Your task to perform on an android device: check google app version Image 0: 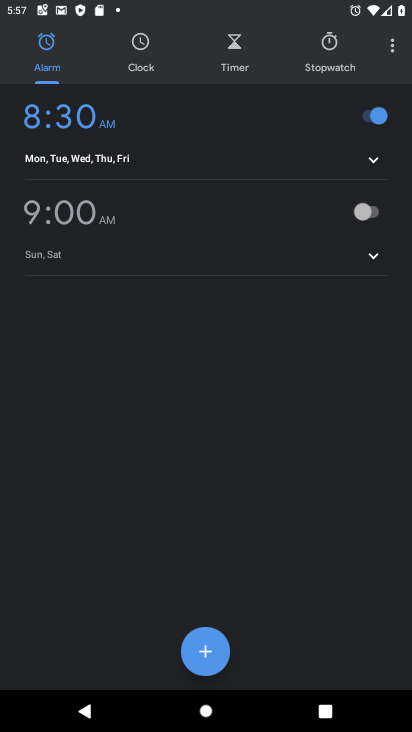
Step 0: press home button
Your task to perform on an android device: check google app version Image 1: 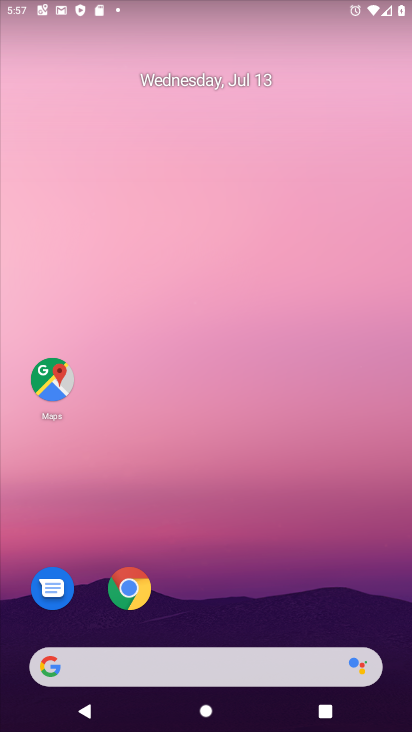
Step 1: click (147, 661)
Your task to perform on an android device: check google app version Image 2: 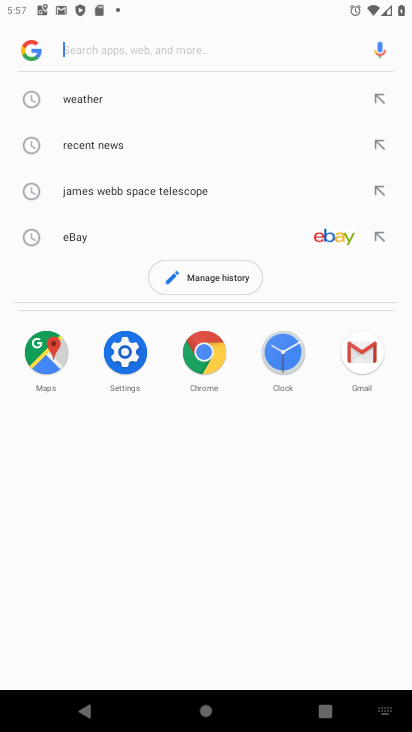
Step 2: click (33, 56)
Your task to perform on an android device: check google app version Image 3: 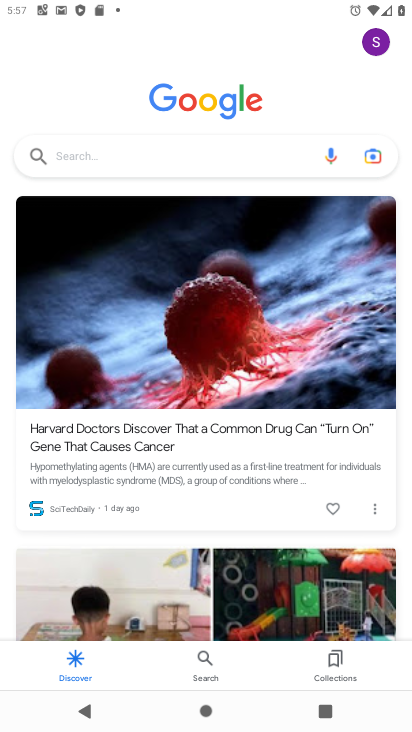
Step 3: click (376, 42)
Your task to perform on an android device: check google app version Image 4: 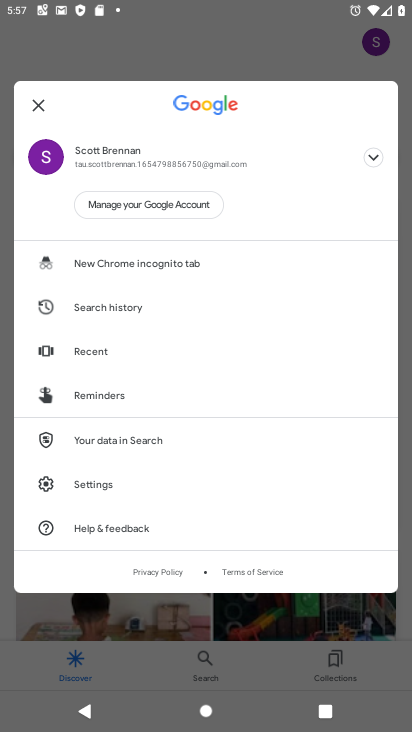
Step 4: click (96, 481)
Your task to perform on an android device: check google app version Image 5: 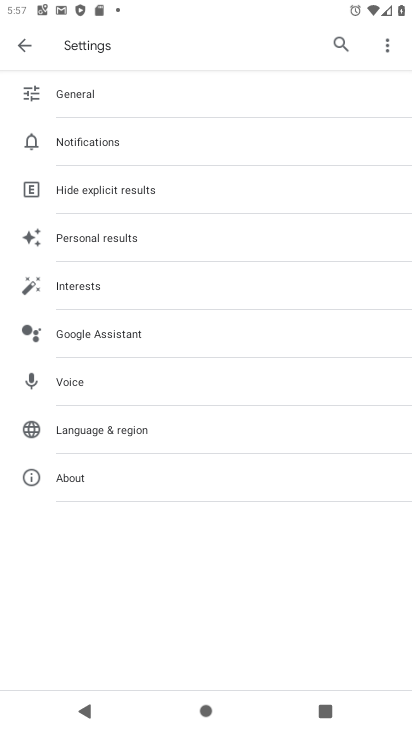
Step 5: click (84, 486)
Your task to perform on an android device: check google app version Image 6: 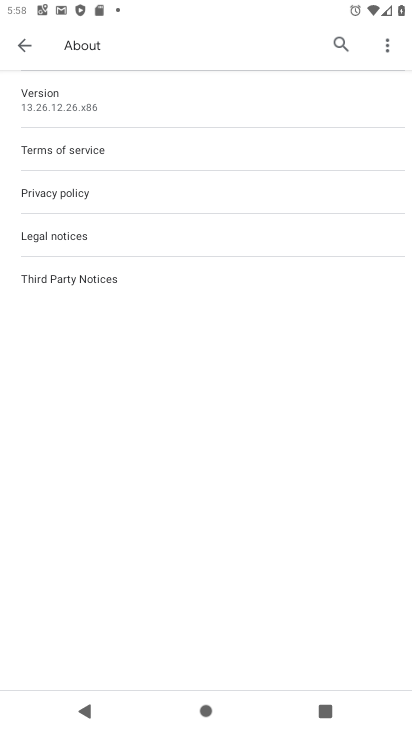
Step 6: task complete